Your task to perform on an android device: Go to battery settings Image 0: 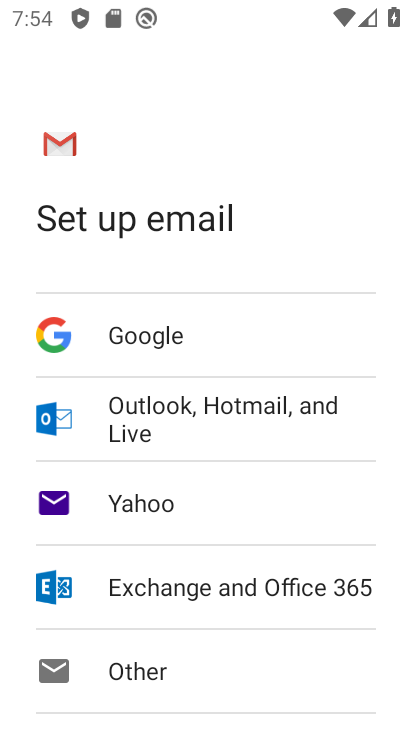
Step 0: press back button
Your task to perform on an android device: Go to battery settings Image 1: 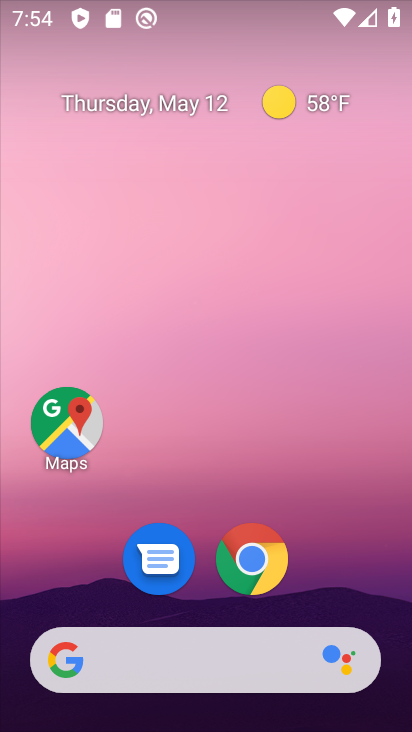
Step 1: drag from (326, 593) to (254, 61)
Your task to perform on an android device: Go to battery settings Image 2: 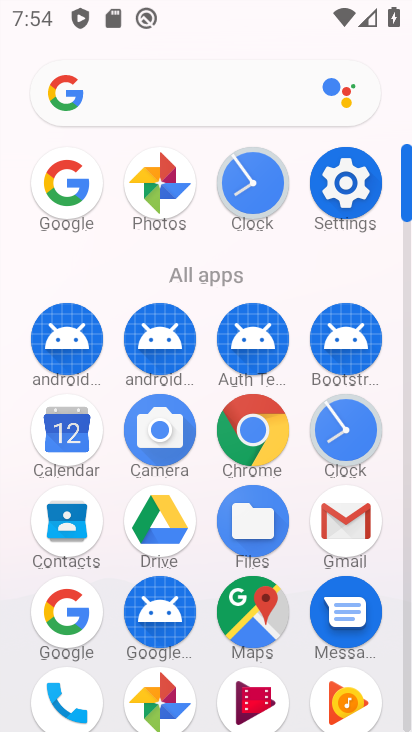
Step 2: click (346, 182)
Your task to perform on an android device: Go to battery settings Image 3: 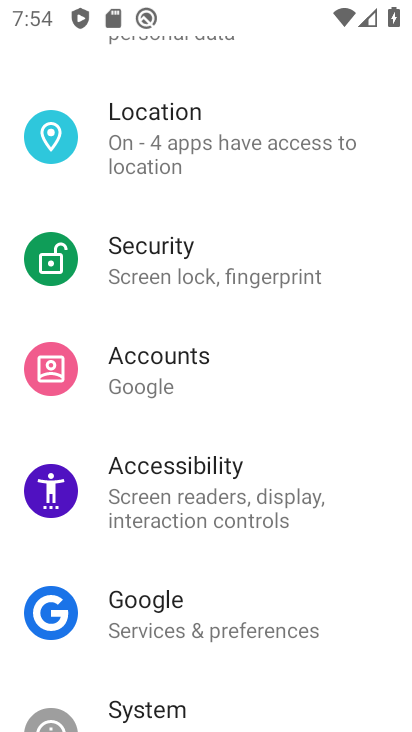
Step 3: drag from (219, 216) to (219, 315)
Your task to perform on an android device: Go to battery settings Image 4: 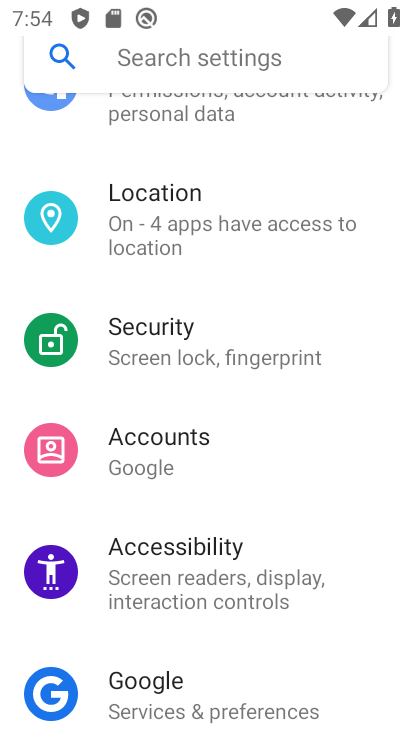
Step 4: drag from (226, 161) to (245, 277)
Your task to perform on an android device: Go to battery settings Image 5: 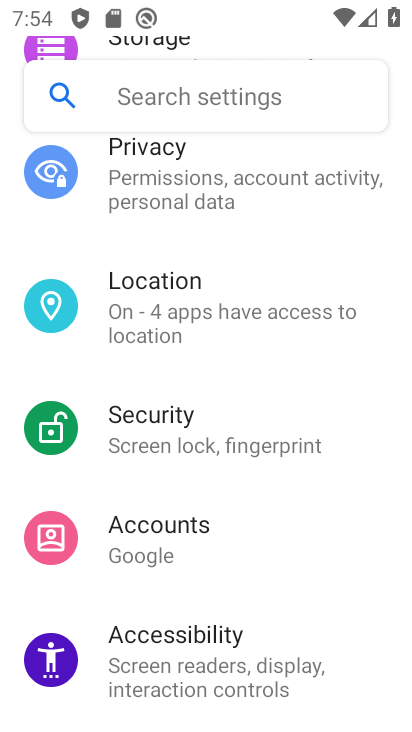
Step 5: drag from (239, 240) to (293, 350)
Your task to perform on an android device: Go to battery settings Image 6: 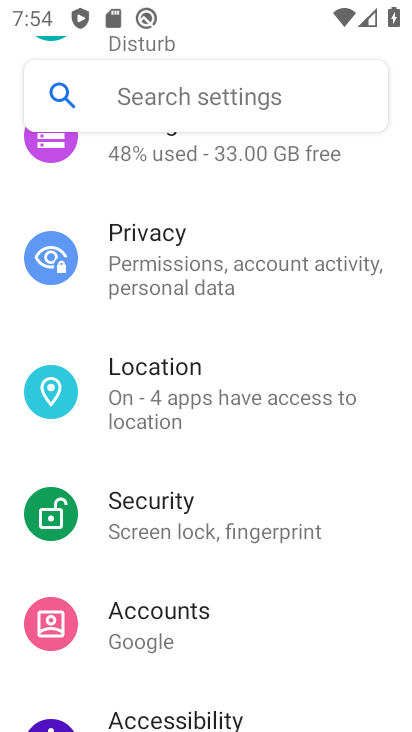
Step 6: drag from (233, 208) to (307, 335)
Your task to perform on an android device: Go to battery settings Image 7: 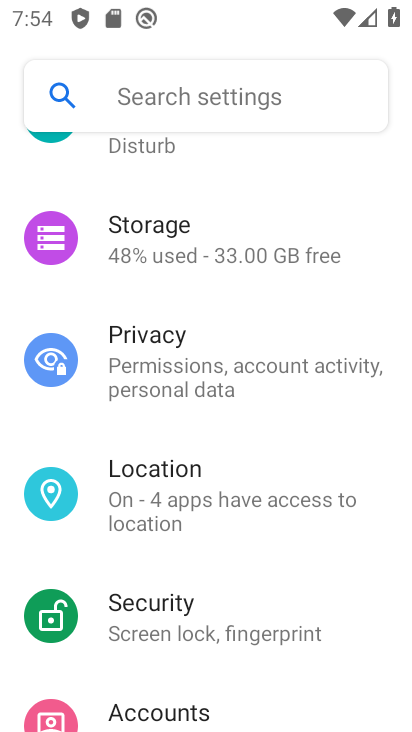
Step 7: drag from (243, 209) to (280, 342)
Your task to perform on an android device: Go to battery settings Image 8: 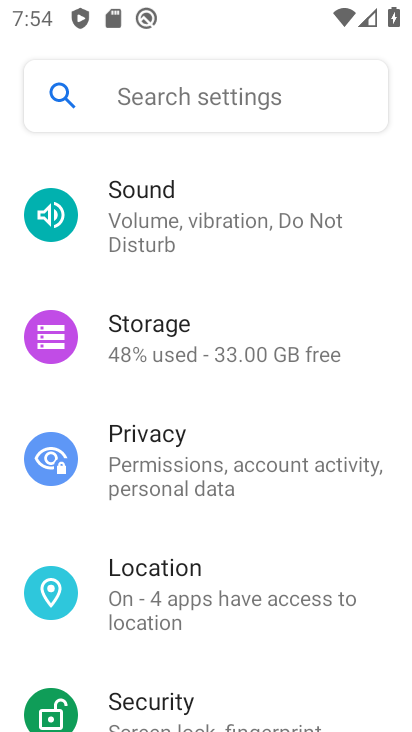
Step 8: drag from (248, 172) to (282, 312)
Your task to perform on an android device: Go to battery settings Image 9: 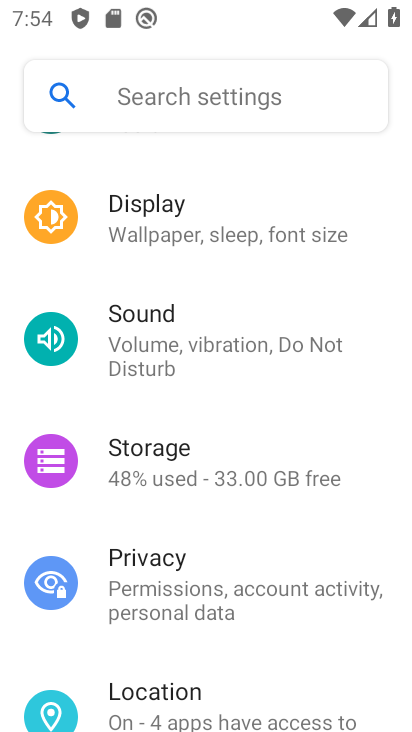
Step 9: drag from (227, 179) to (267, 304)
Your task to perform on an android device: Go to battery settings Image 10: 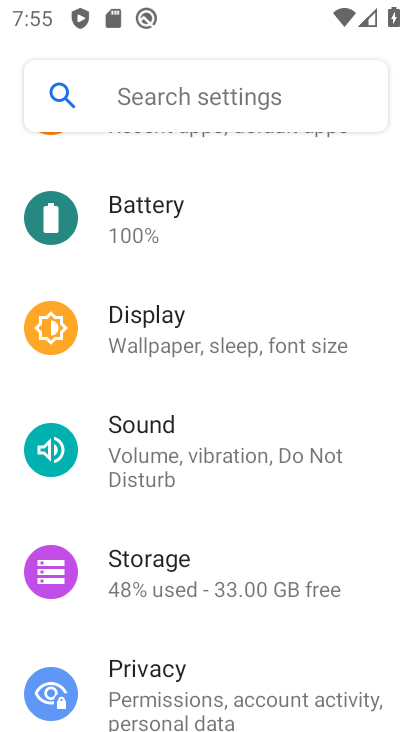
Step 10: click (151, 198)
Your task to perform on an android device: Go to battery settings Image 11: 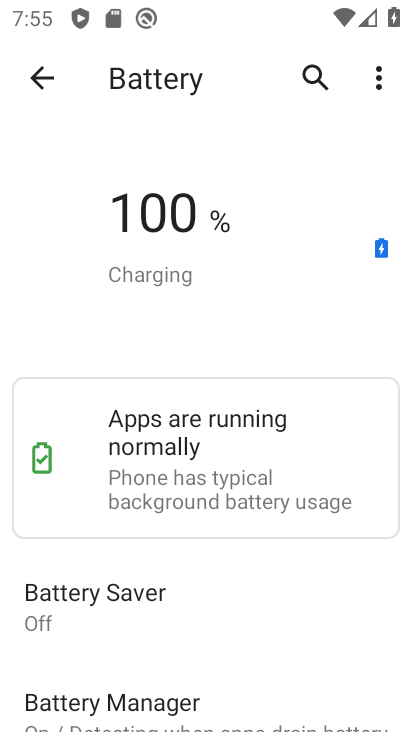
Step 11: task complete